Your task to perform on an android device: Open Google Chrome and click the shortcut for Amazon.com Image 0: 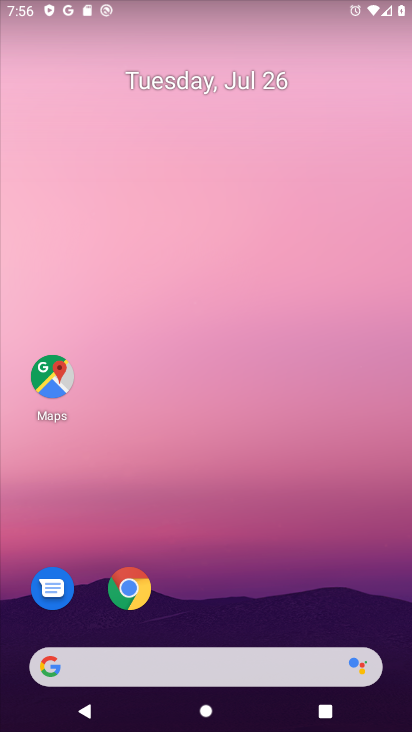
Step 0: drag from (253, 642) to (245, 104)
Your task to perform on an android device: Open Google Chrome and click the shortcut for Amazon.com Image 1: 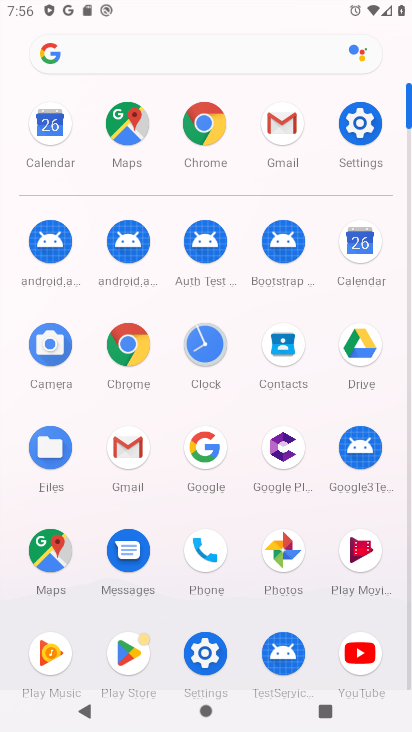
Step 1: click (206, 136)
Your task to perform on an android device: Open Google Chrome and click the shortcut for Amazon.com Image 2: 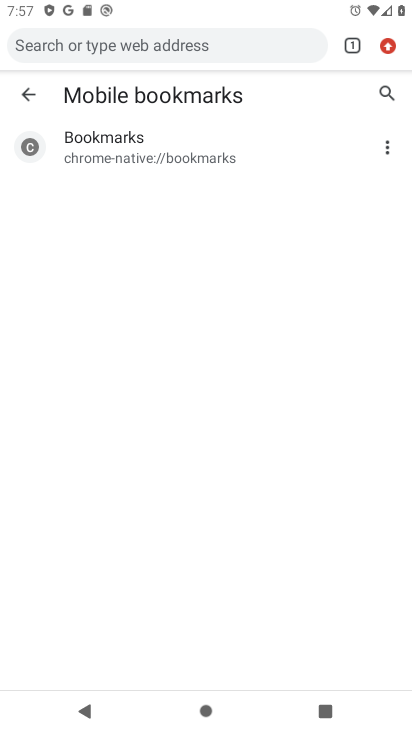
Step 2: click (33, 94)
Your task to perform on an android device: Open Google Chrome and click the shortcut for Amazon.com Image 3: 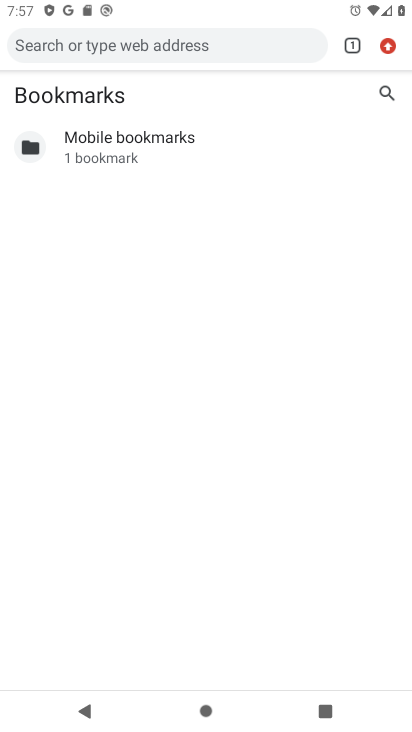
Step 3: press back button
Your task to perform on an android device: Open Google Chrome and click the shortcut for Amazon.com Image 4: 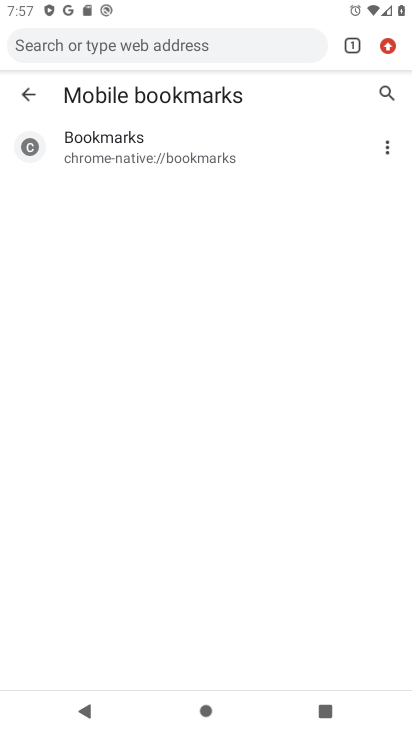
Step 4: click (234, 54)
Your task to perform on an android device: Open Google Chrome and click the shortcut for Amazon.com Image 5: 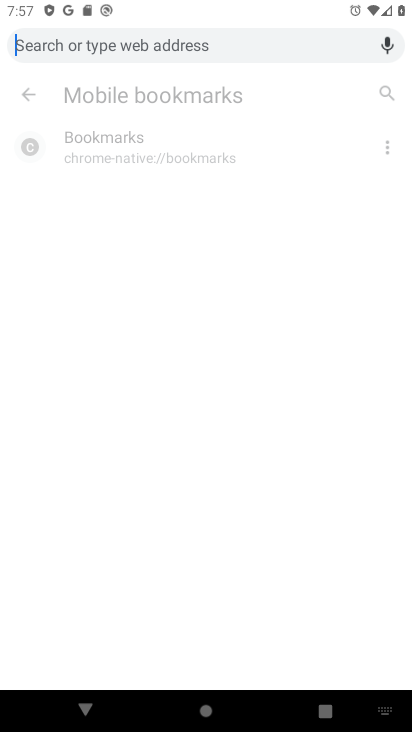
Step 5: type "amazon"
Your task to perform on an android device: Open Google Chrome and click the shortcut for Amazon.com Image 6: 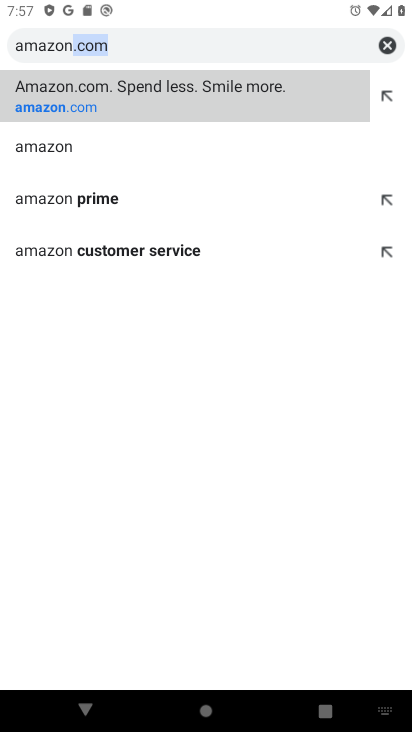
Step 6: click (246, 85)
Your task to perform on an android device: Open Google Chrome and click the shortcut for Amazon.com Image 7: 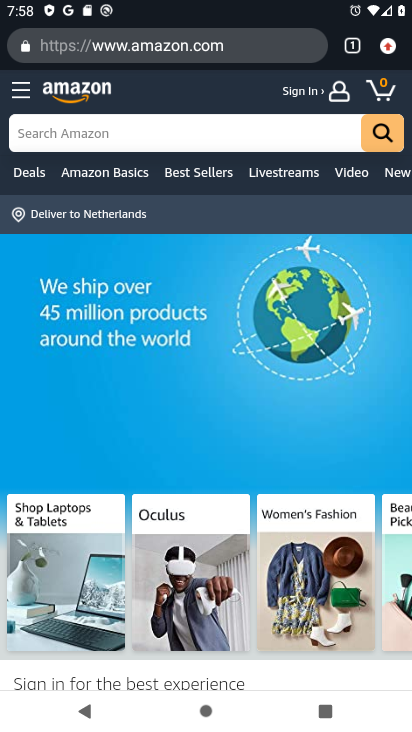
Step 7: task complete